Your task to perform on an android device: Search for seafood restaurants on Google Maps Image 0: 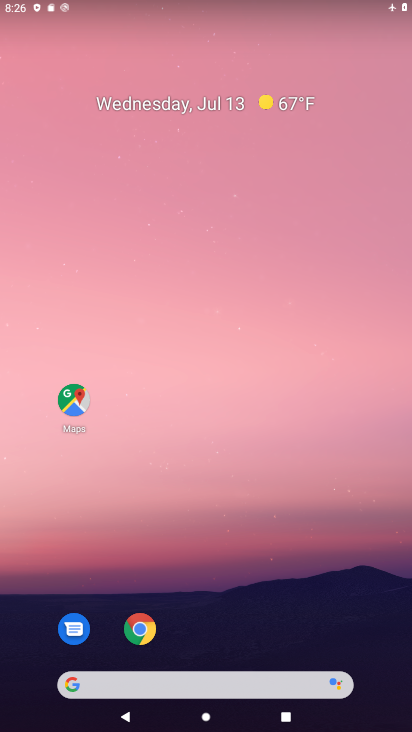
Step 0: drag from (211, 612) to (253, 0)
Your task to perform on an android device: Search for seafood restaurants on Google Maps Image 1: 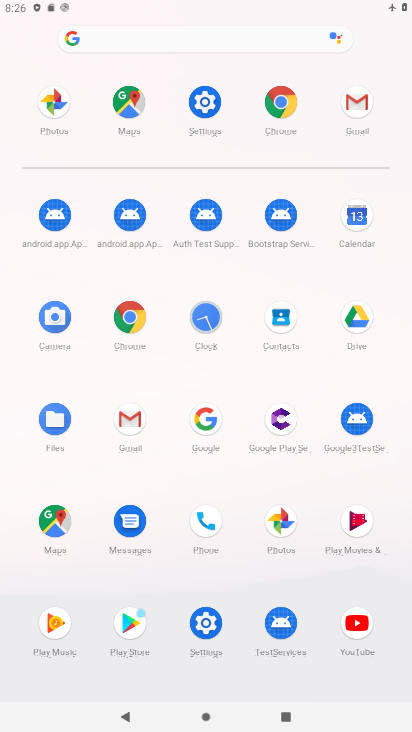
Step 1: click (51, 530)
Your task to perform on an android device: Search for seafood restaurants on Google Maps Image 2: 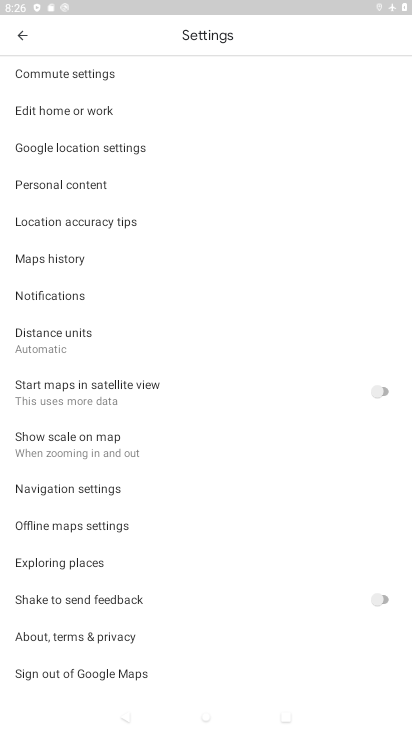
Step 2: click (24, 33)
Your task to perform on an android device: Search for seafood restaurants on Google Maps Image 3: 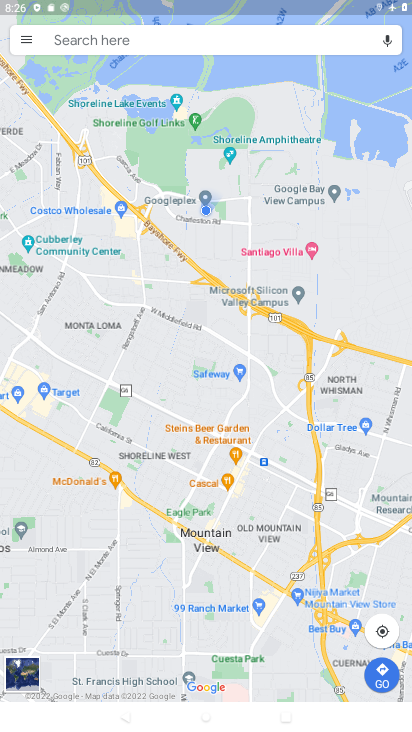
Step 3: click (167, 46)
Your task to perform on an android device: Search for seafood restaurants on Google Maps Image 4: 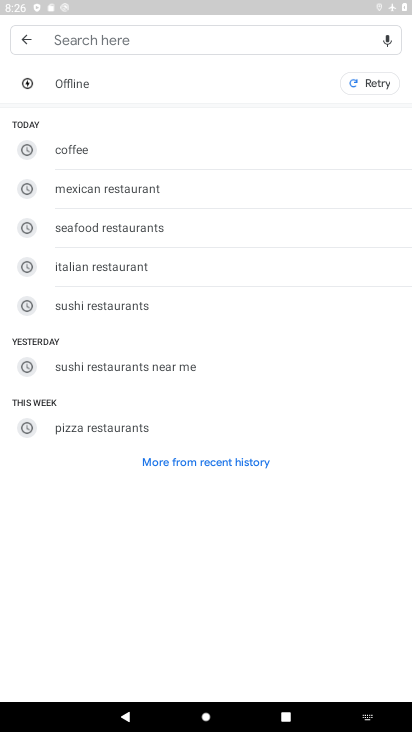
Step 4: type "seafood restaurants"
Your task to perform on an android device: Search for seafood restaurants on Google Maps Image 5: 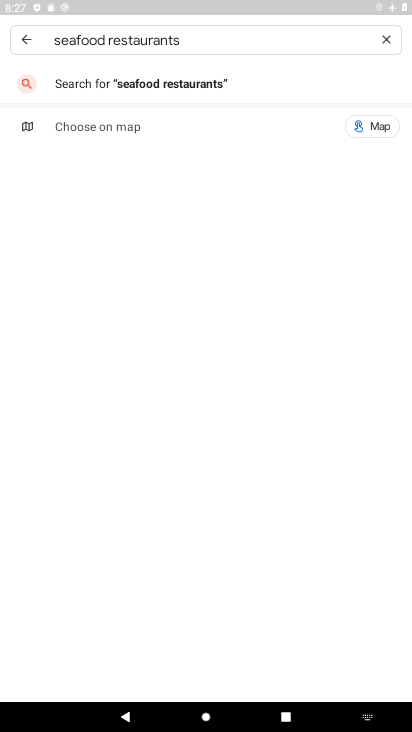
Step 5: click (176, 82)
Your task to perform on an android device: Search for seafood restaurants on Google Maps Image 6: 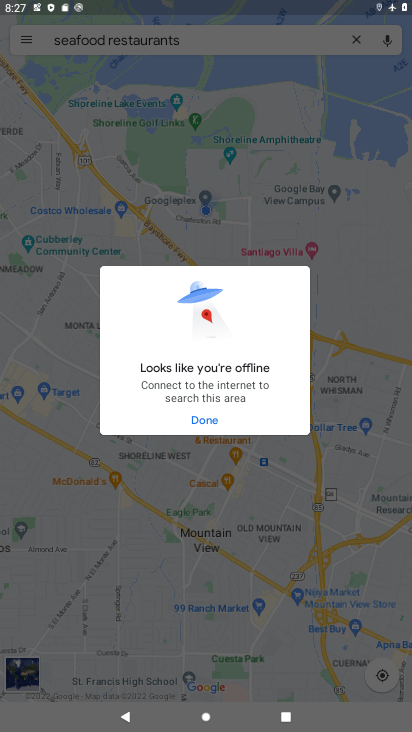
Step 6: task complete